Your task to perform on an android device: delete a single message in the gmail app Image 0: 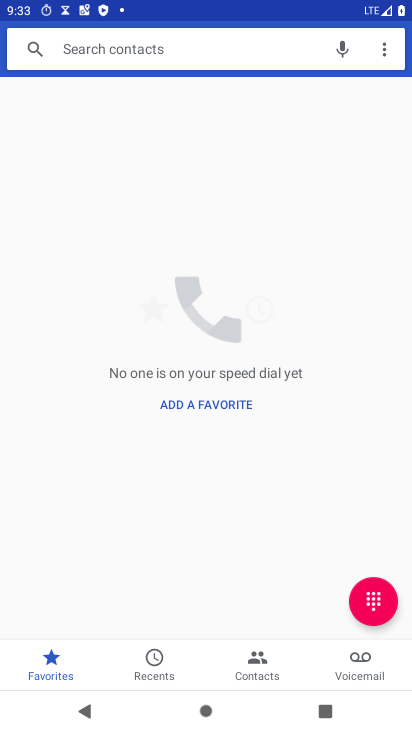
Step 0: press back button
Your task to perform on an android device: delete a single message in the gmail app Image 1: 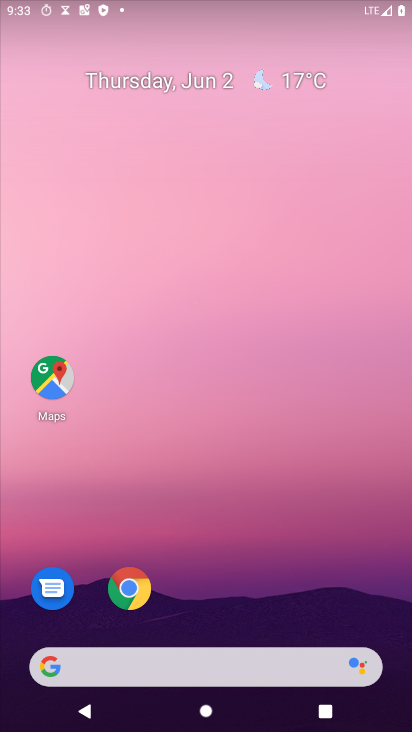
Step 1: drag from (220, 531) to (257, 71)
Your task to perform on an android device: delete a single message in the gmail app Image 2: 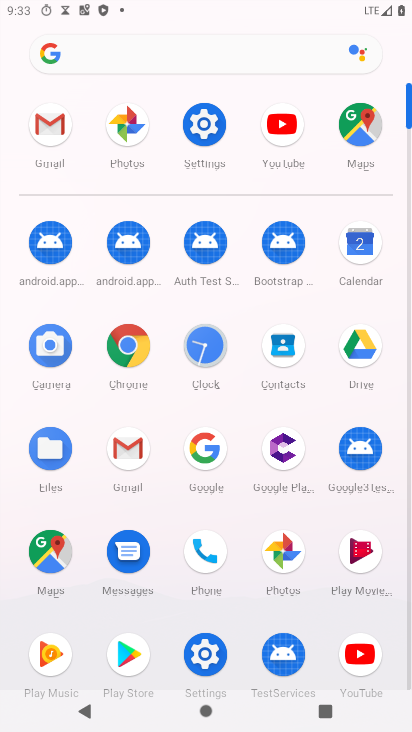
Step 2: click (56, 126)
Your task to perform on an android device: delete a single message in the gmail app Image 3: 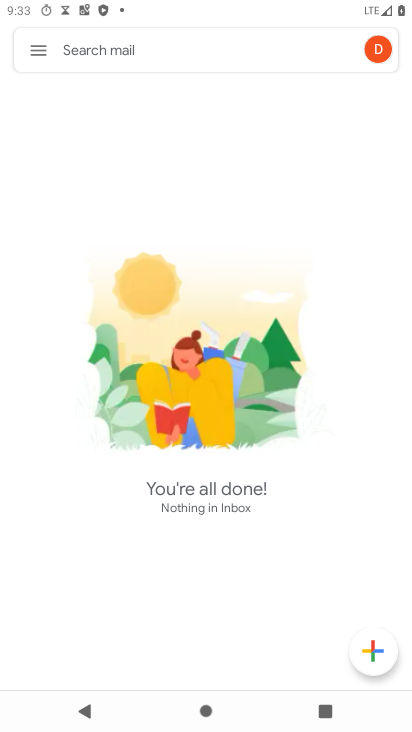
Step 3: click (41, 50)
Your task to perform on an android device: delete a single message in the gmail app Image 4: 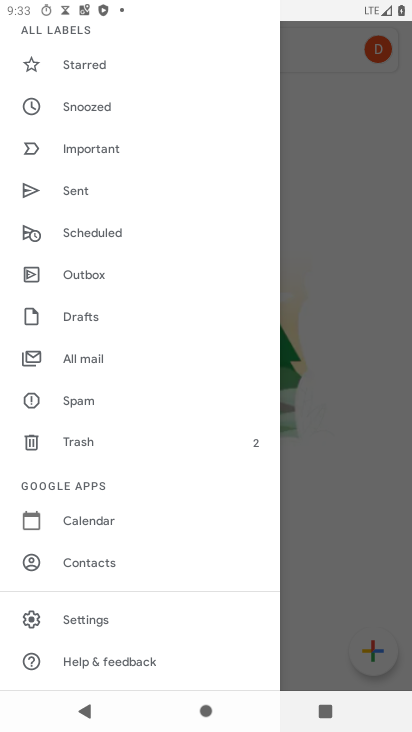
Step 4: click (94, 351)
Your task to perform on an android device: delete a single message in the gmail app Image 5: 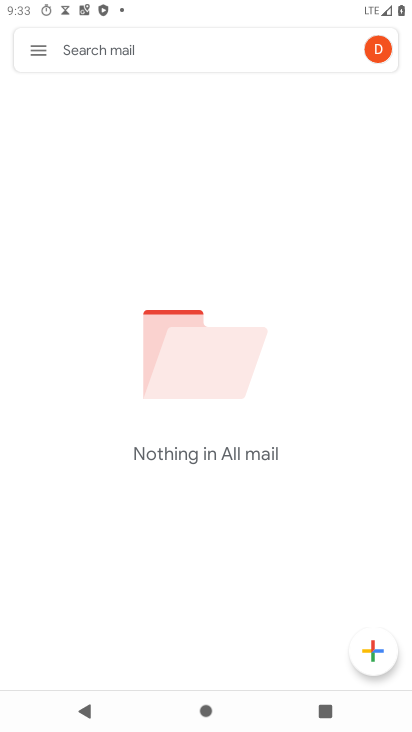
Step 5: task complete